Your task to perform on an android device: Open eBay Image 0: 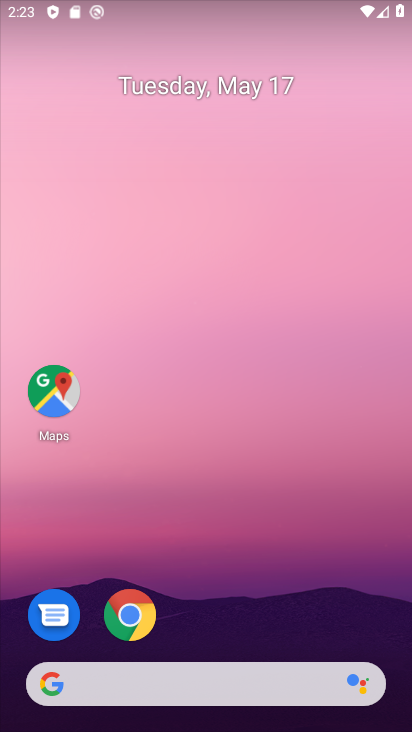
Step 0: click (142, 611)
Your task to perform on an android device: Open eBay Image 1: 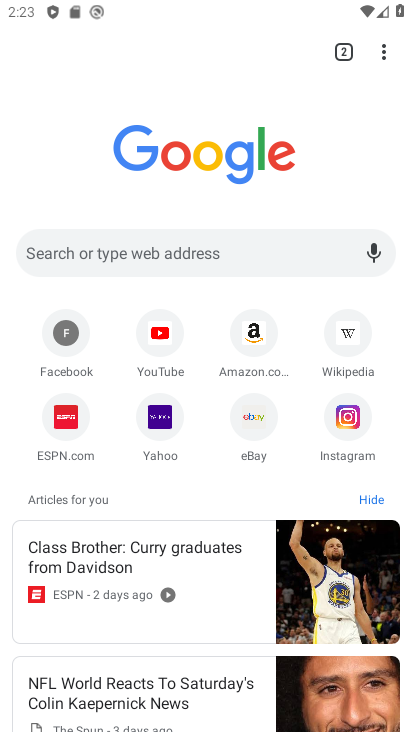
Step 1: click (214, 258)
Your task to perform on an android device: Open eBay Image 2: 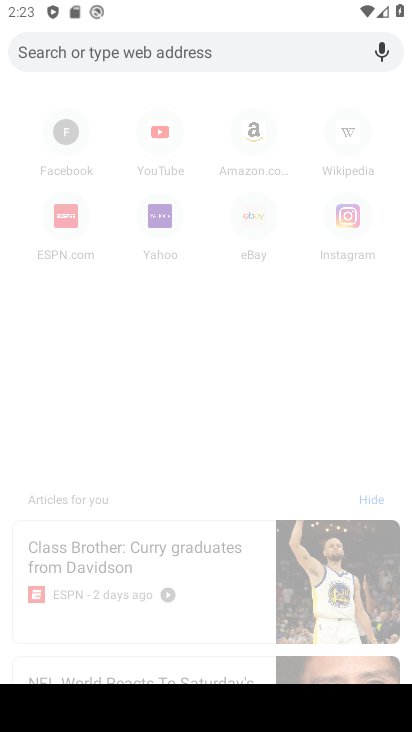
Step 2: type "eBay"
Your task to perform on an android device: Open eBay Image 3: 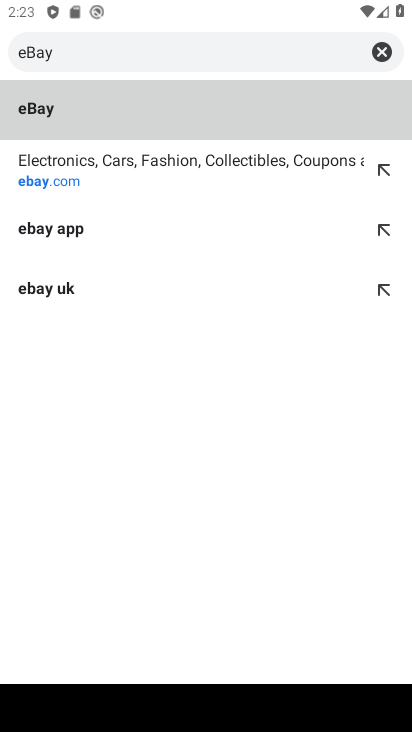
Step 3: click (149, 116)
Your task to perform on an android device: Open eBay Image 4: 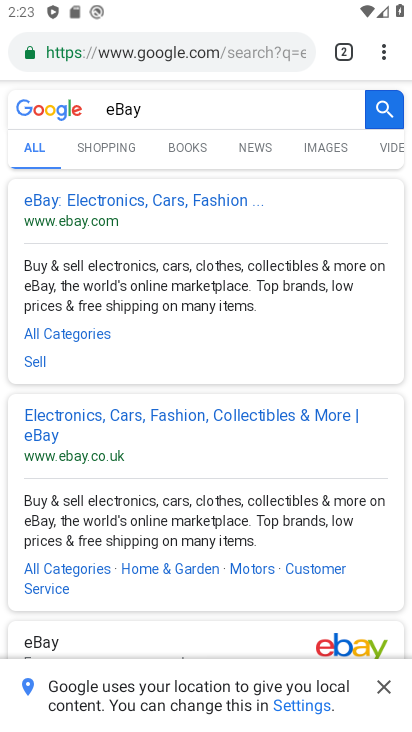
Step 4: click (77, 195)
Your task to perform on an android device: Open eBay Image 5: 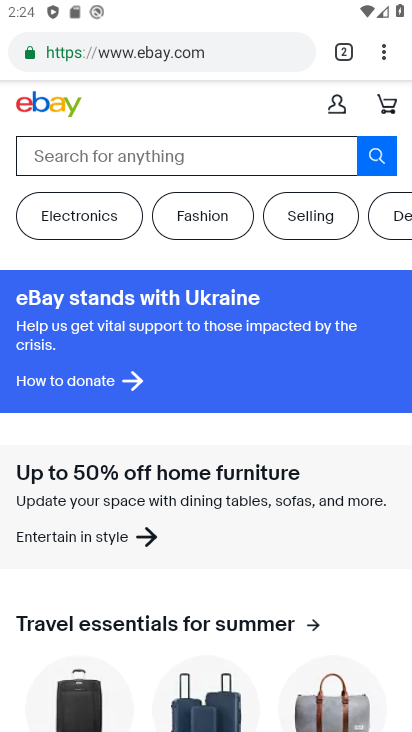
Step 5: task complete